Your task to perform on an android device: Find coffee shops on Maps Image 0: 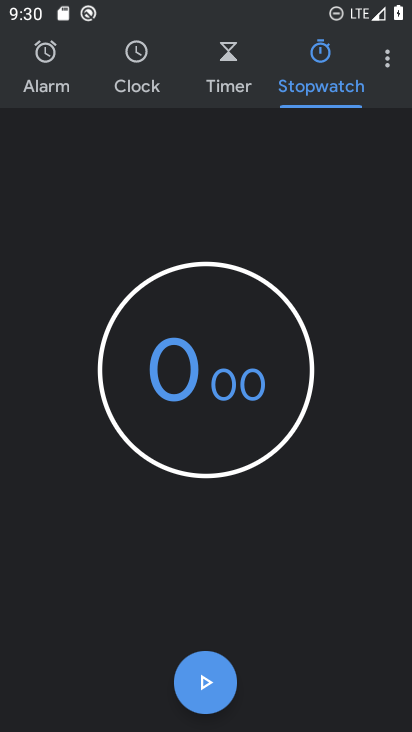
Step 0: press home button
Your task to perform on an android device: Find coffee shops on Maps Image 1: 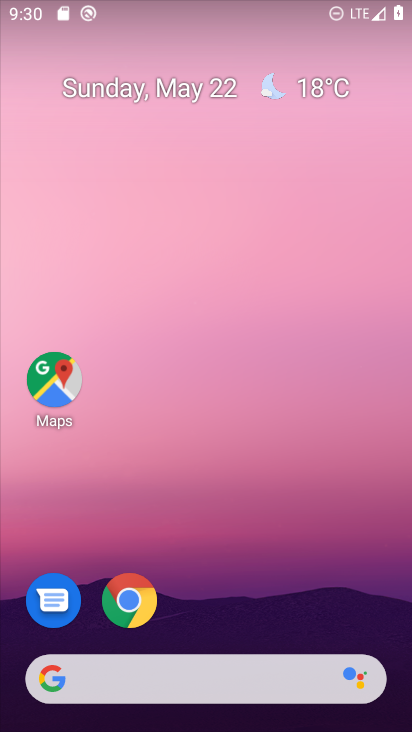
Step 1: drag from (384, 643) to (297, 0)
Your task to perform on an android device: Find coffee shops on Maps Image 2: 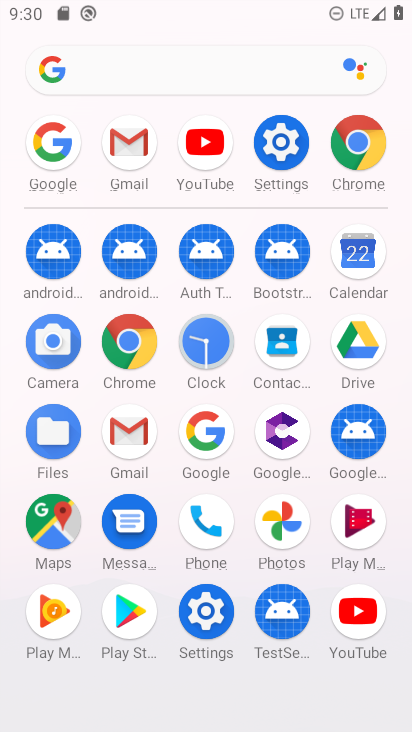
Step 2: click (43, 528)
Your task to perform on an android device: Find coffee shops on Maps Image 3: 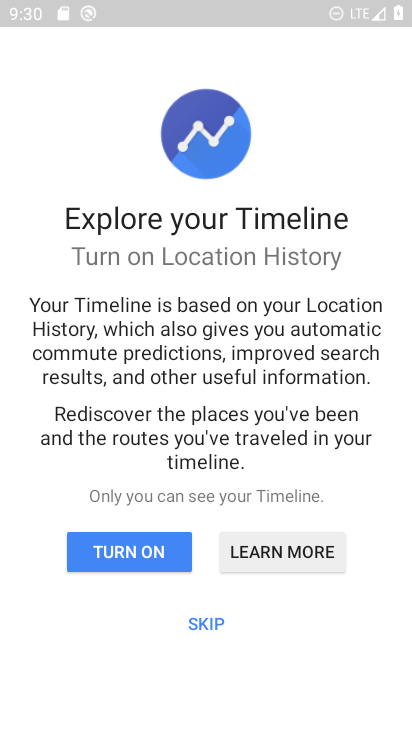
Step 3: press back button
Your task to perform on an android device: Find coffee shops on Maps Image 4: 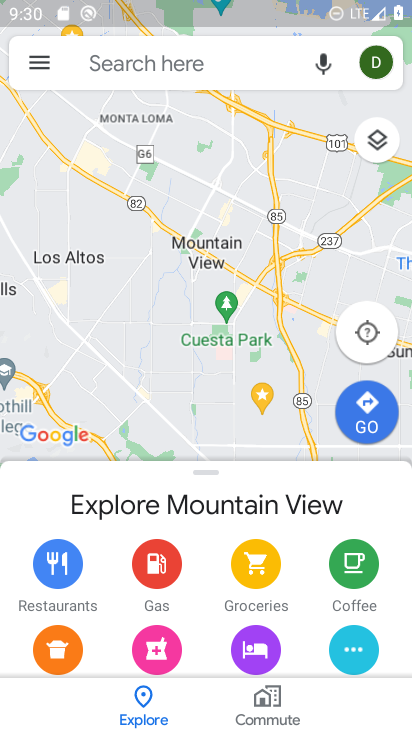
Step 4: click (137, 57)
Your task to perform on an android device: Find coffee shops on Maps Image 5: 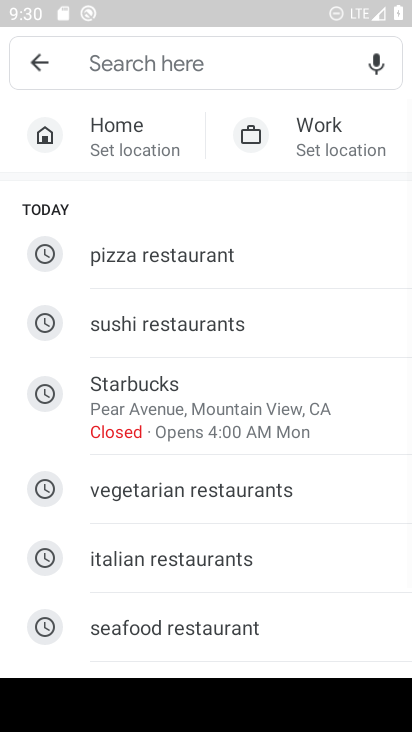
Step 5: drag from (167, 568) to (189, 187)
Your task to perform on an android device: Find coffee shops on Maps Image 6: 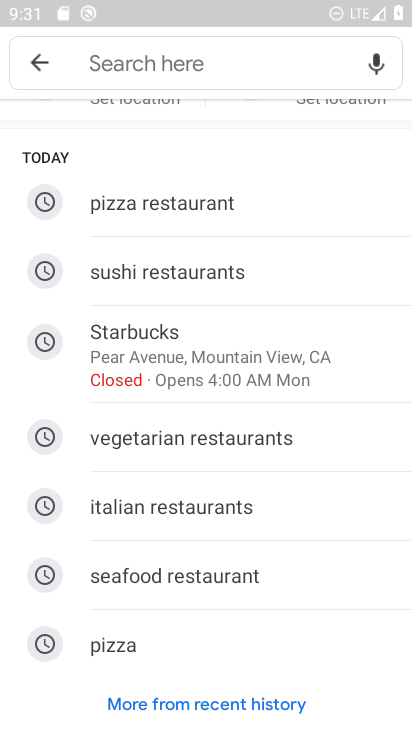
Step 6: click (202, 71)
Your task to perform on an android device: Find coffee shops on Maps Image 7: 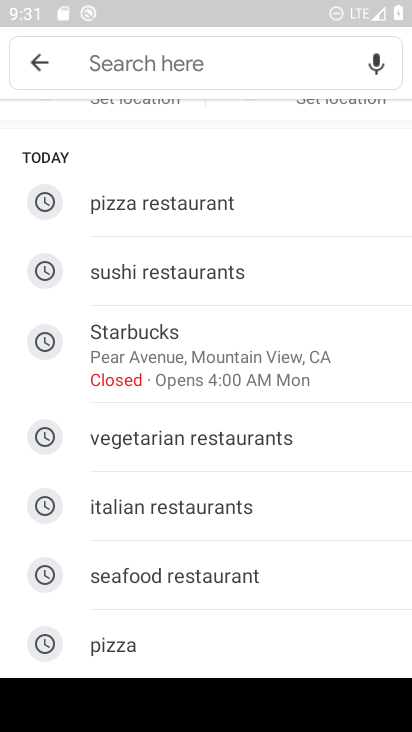
Step 7: type "coffee"
Your task to perform on an android device: Find coffee shops on Maps Image 8: 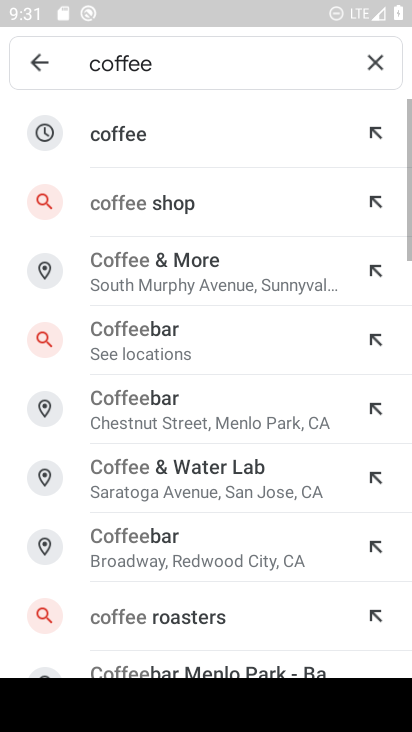
Step 8: click (166, 141)
Your task to perform on an android device: Find coffee shops on Maps Image 9: 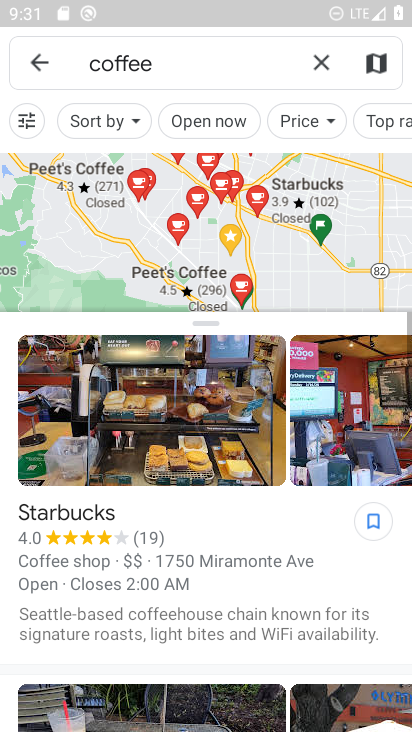
Step 9: task complete